Your task to perform on an android device: Go to CNN.com Image 0: 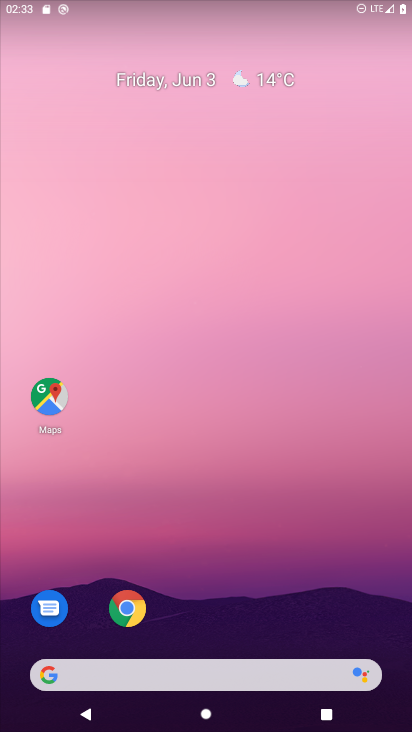
Step 0: drag from (257, 564) to (269, 157)
Your task to perform on an android device: Go to CNN.com Image 1: 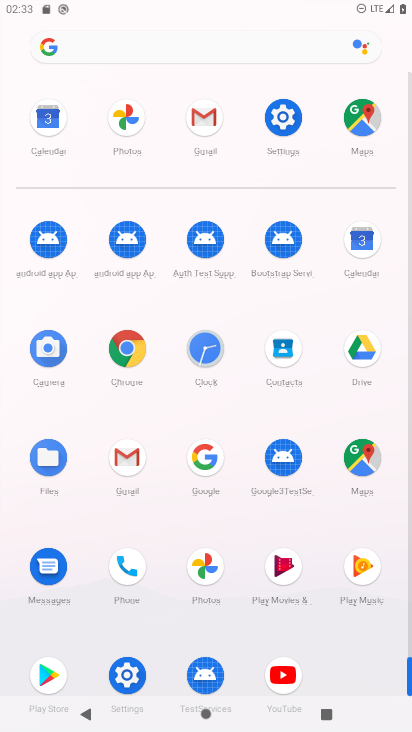
Step 1: click (119, 354)
Your task to perform on an android device: Go to CNN.com Image 2: 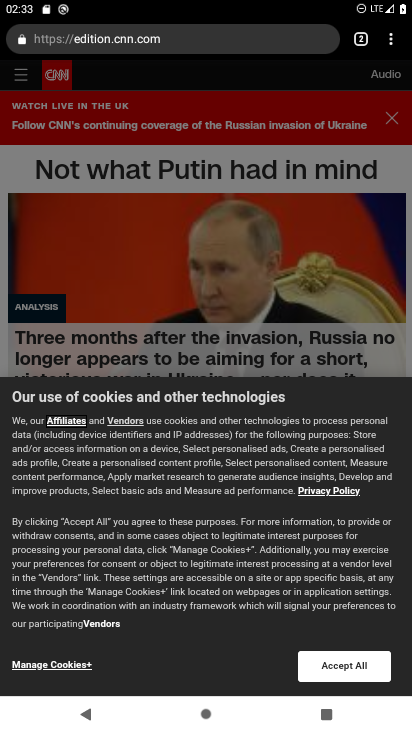
Step 2: task complete